Your task to perform on an android device: Open location settings Image 0: 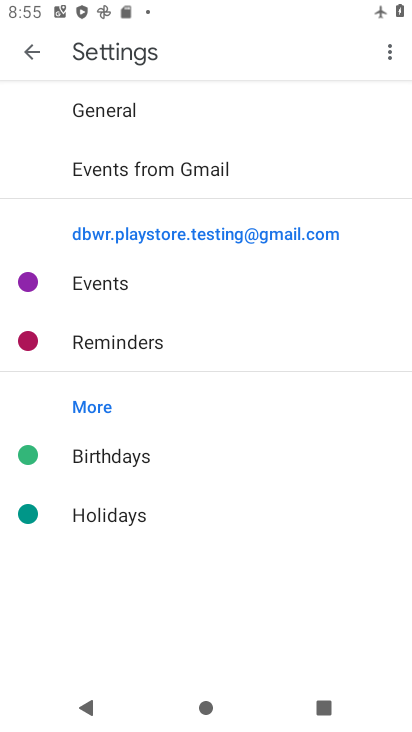
Step 0: press home button
Your task to perform on an android device: Open location settings Image 1: 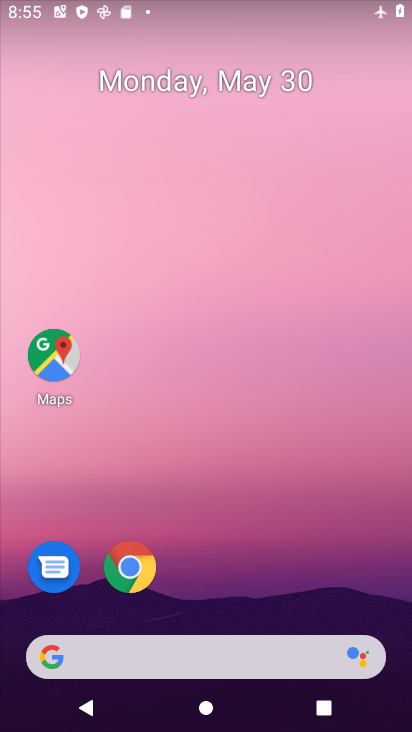
Step 1: drag from (296, 586) to (261, 199)
Your task to perform on an android device: Open location settings Image 2: 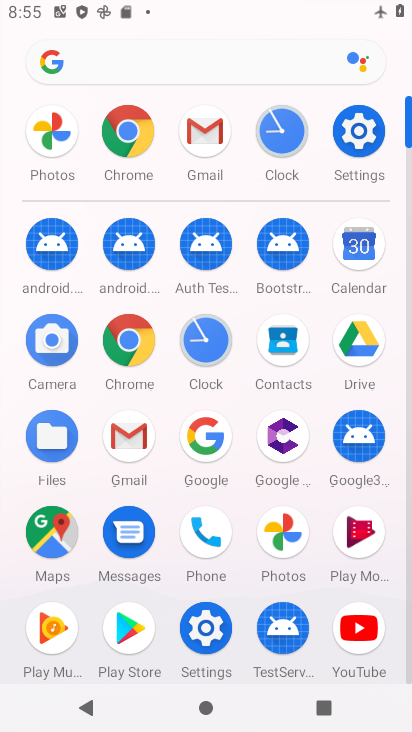
Step 2: click (354, 153)
Your task to perform on an android device: Open location settings Image 3: 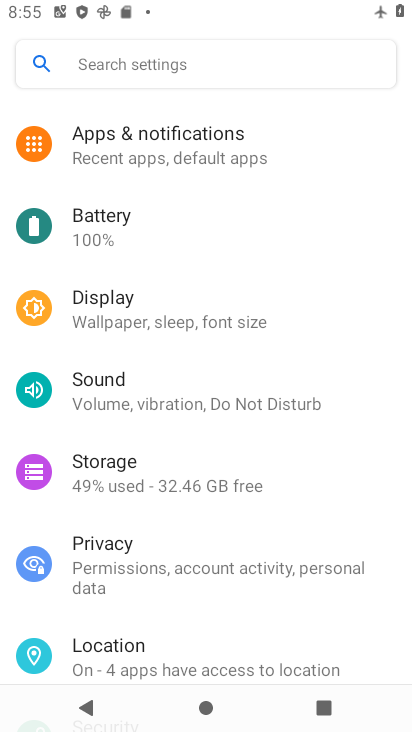
Step 3: click (149, 644)
Your task to perform on an android device: Open location settings Image 4: 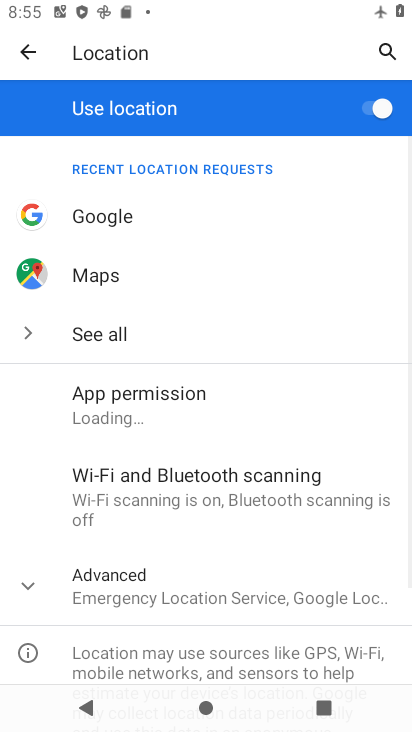
Step 4: task complete